Your task to perform on an android device: Open settings Image 0: 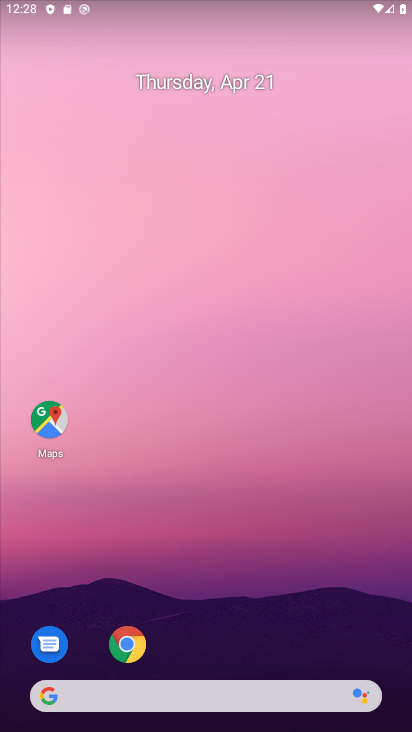
Step 0: drag from (259, 624) to (250, 50)
Your task to perform on an android device: Open settings Image 1: 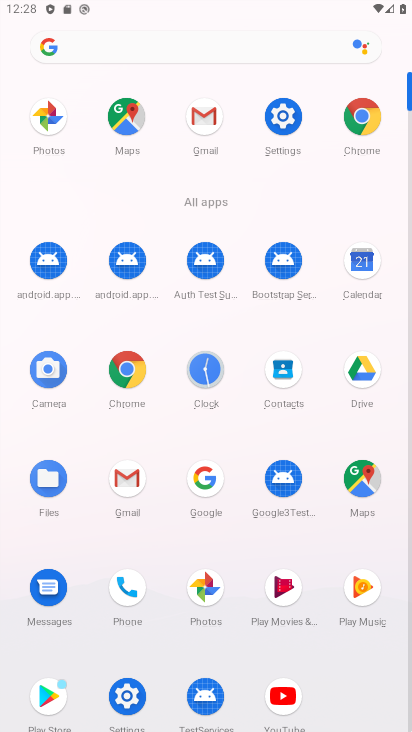
Step 1: click (281, 115)
Your task to perform on an android device: Open settings Image 2: 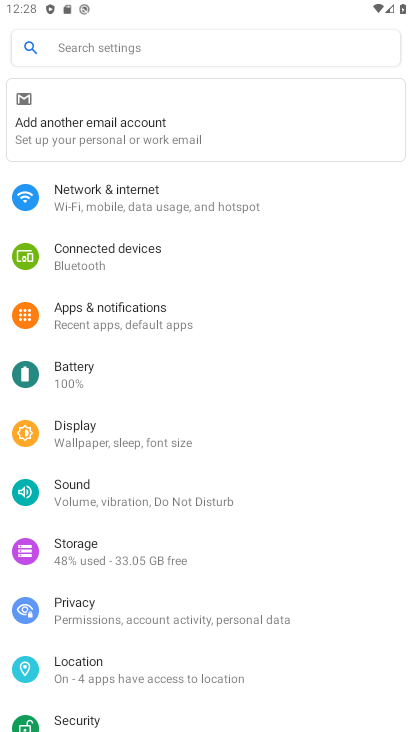
Step 2: task complete